Your task to perform on an android device: check data usage Image 0: 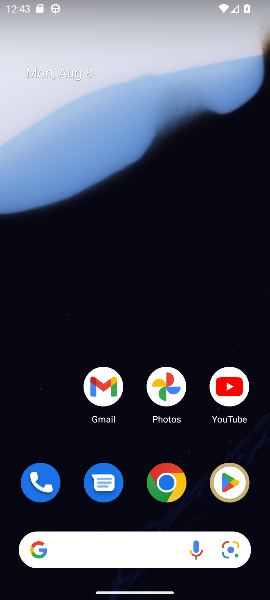
Step 0: drag from (162, 540) to (181, 431)
Your task to perform on an android device: check data usage Image 1: 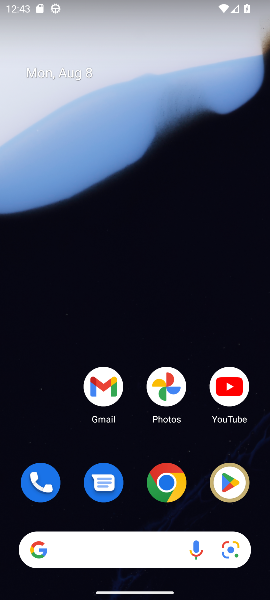
Step 1: drag from (119, 547) to (190, 6)
Your task to perform on an android device: check data usage Image 2: 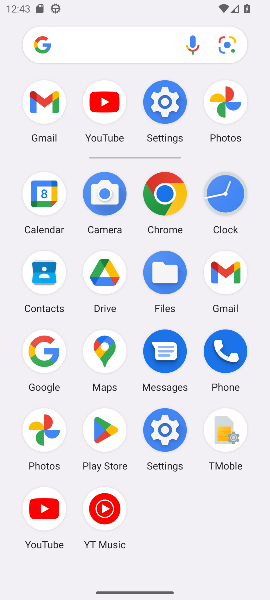
Step 2: click (158, 98)
Your task to perform on an android device: check data usage Image 3: 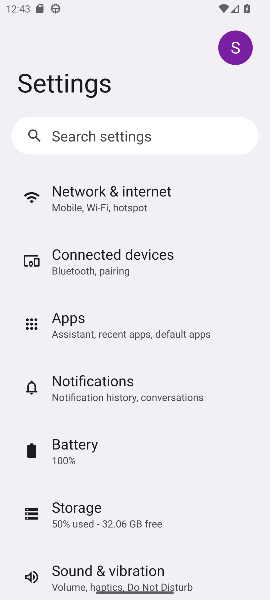
Step 3: click (123, 204)
Your task to perform on an android device: check data usage Image 4: 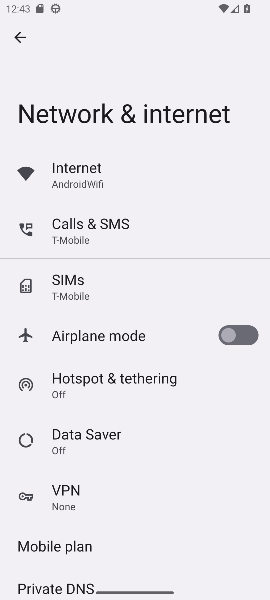
Step 4: click (105, 184)
Your task to perform on an android device: check data usage Image 5: 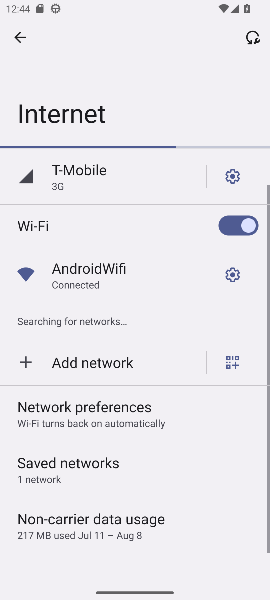
Step 5: task complete